Your task to perform on an android device: Go to settings Image 0: 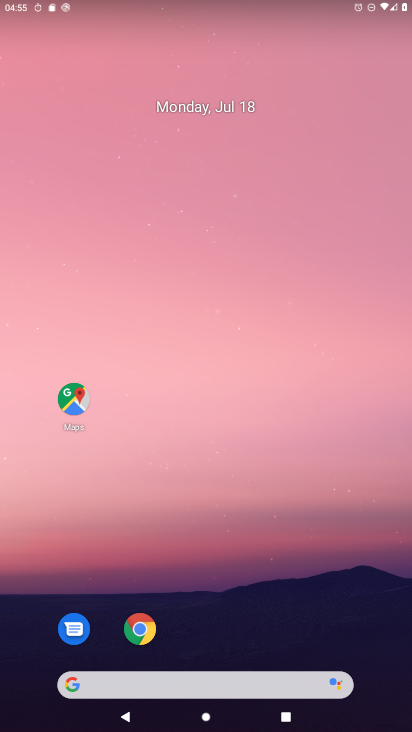
Step 0: drag from (200, 690) to (274, 118)
Your task to perform on an android device: Go to settings Image 1: 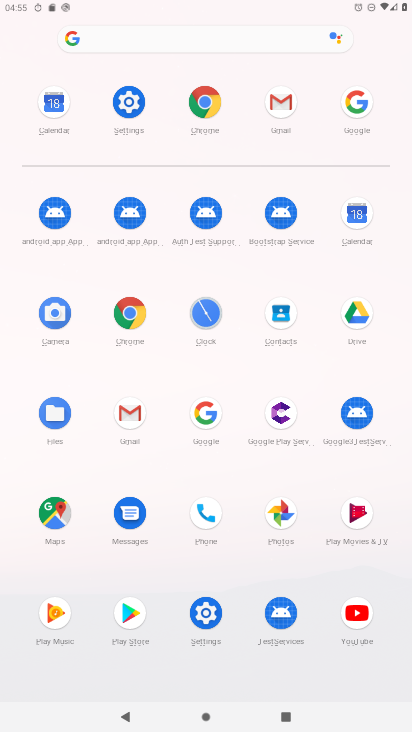
Step 1: click (129, 104)
Your task to perform on an android device: Go to settings Image 2: 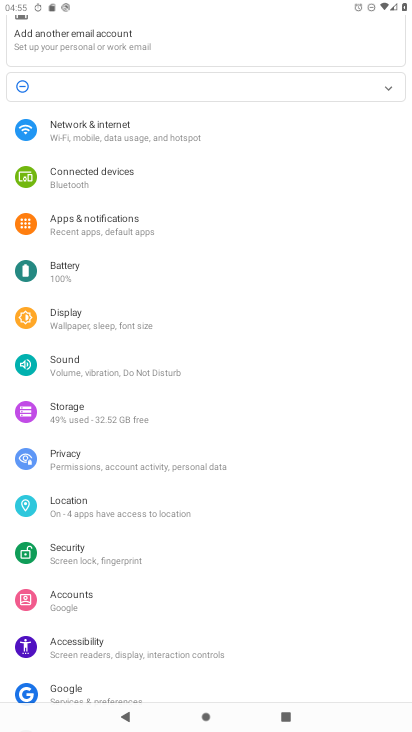
Step 2: task complete